Your task to perform on an android device: Open Google Maps and go to "Timeline" Image 0: 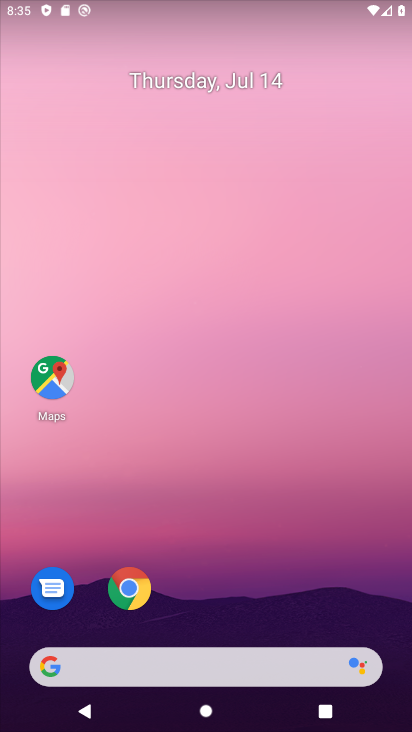
Step 0: click (52, 376)
Your task to perform on an android device: Open Google Maps and go to "Timeline" Image 1: 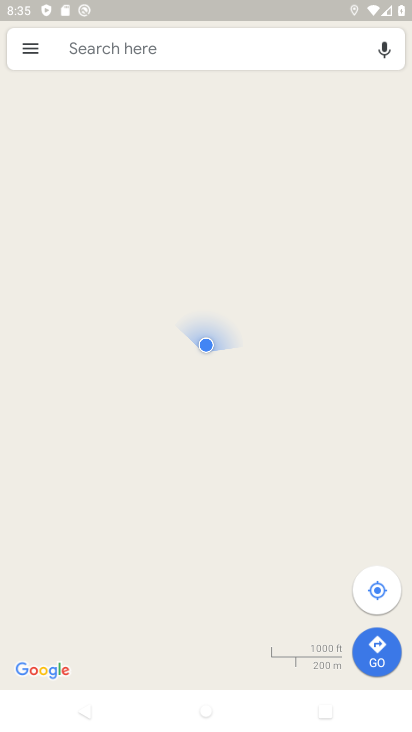
Step 1: click (32, 48)
Your task to perform on an android device: Open Google Maps and go to "Timeline" Image 2: 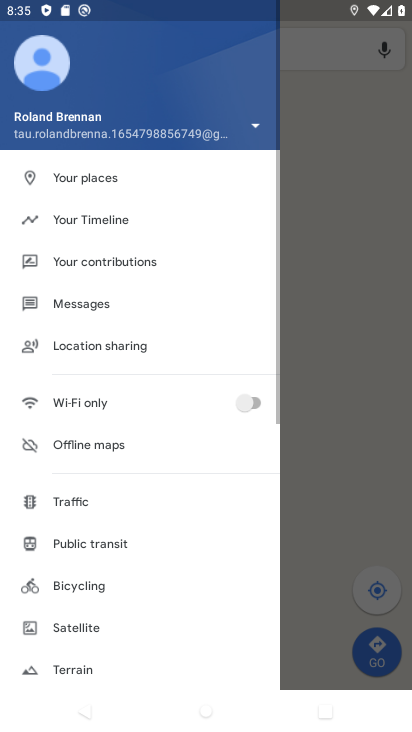
Step 2: click (110, 225)
Your task to perform on an android device: Open Google Maps and go to "Timeline" Image 3: 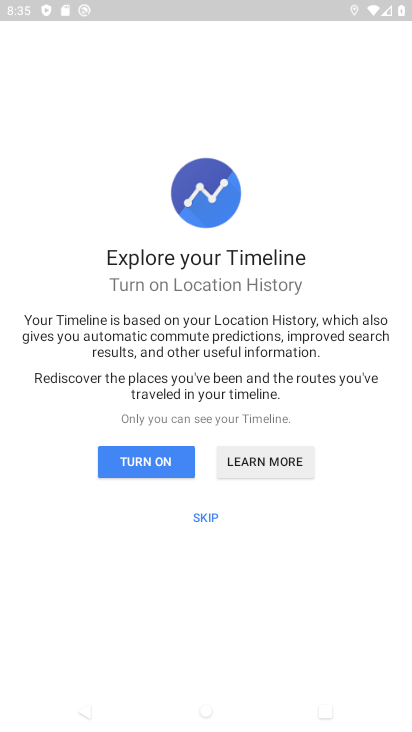
Step 3: click (157, 462)
Your task to perform on an android device: Open Google Maps and go to "Timeline" Image 4: 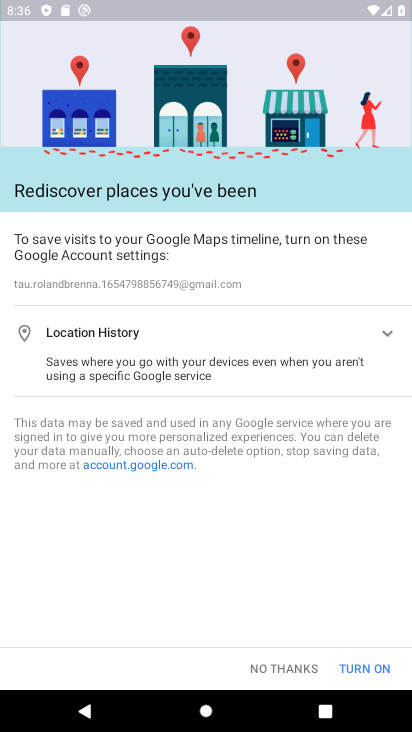
Step 4: task complete